Your task to perform on an android device: check the backup settings in the google photos Image 0: 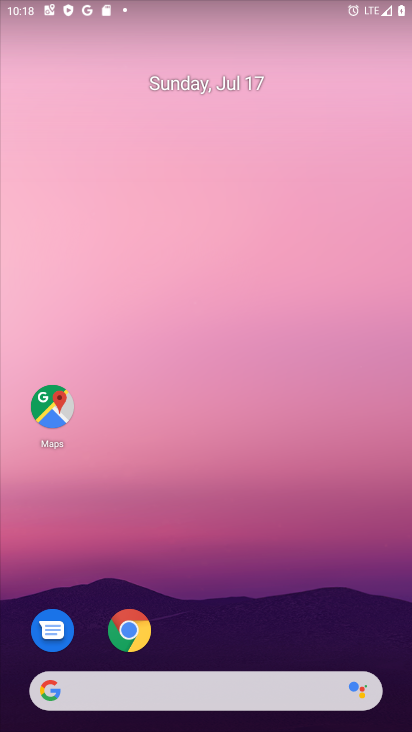
Step 0: drag from (206, 656) to (223, 100)
Your task to perform on an android device: check the backup settings in the google photos Image 1: 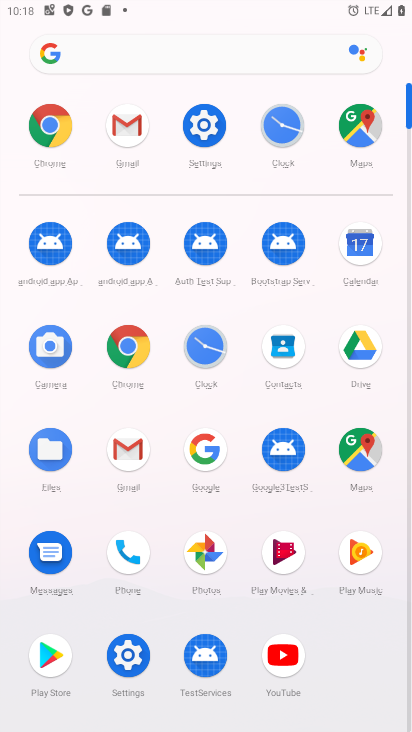
Step 1: click (200, 549)
Your task to perform on an android device: check the backup settings in the google photos Image 2: 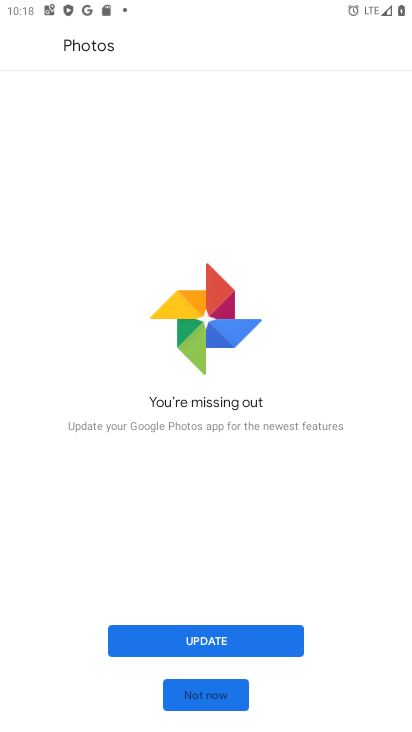
Step 2: click (202, 641)
Your task to perform on an android device: check the backup settings in the google photos Image 3: 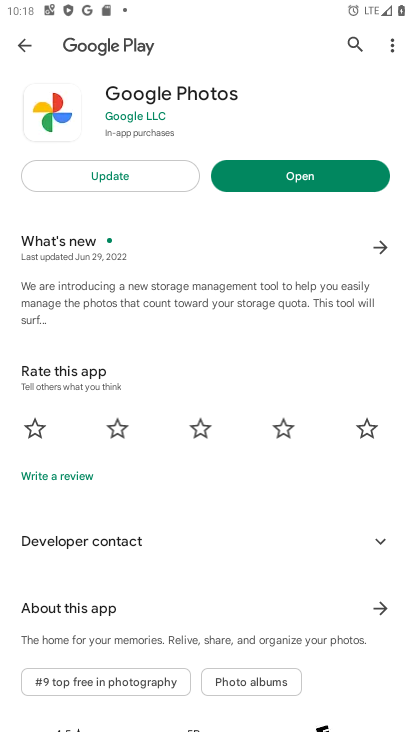
Step 3: click (140, 183)
Your task to perform on an android device: check the backup settings in the google photos Image 4: 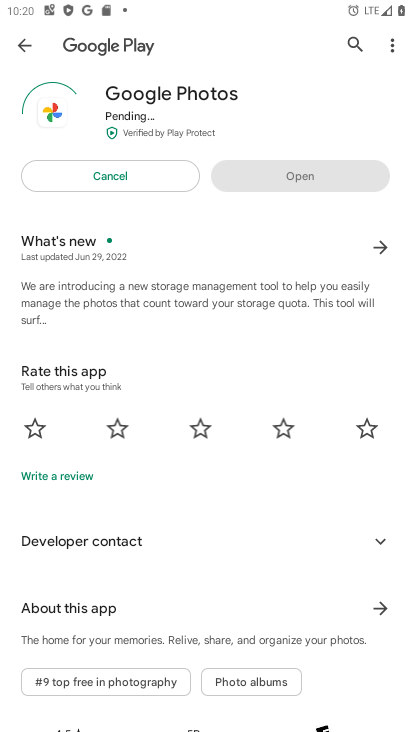
Step 4: task complete